Your task to perform on an android device: change text size in settings app Image 0: 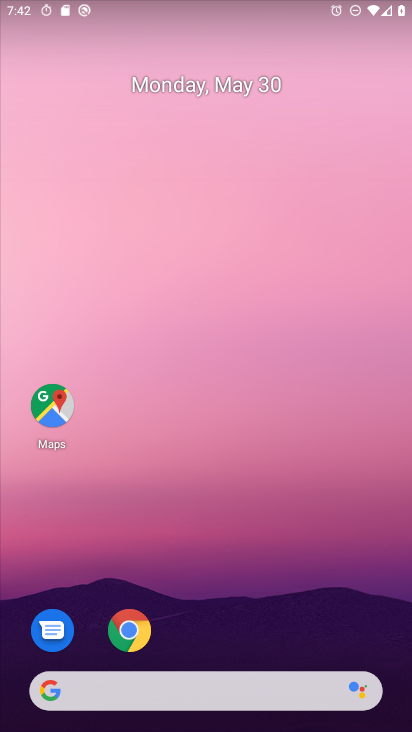
Step 0: drag from (336, 618) to (286, 0)
Your task to perform on an android device: change text size in settings app Image 1: 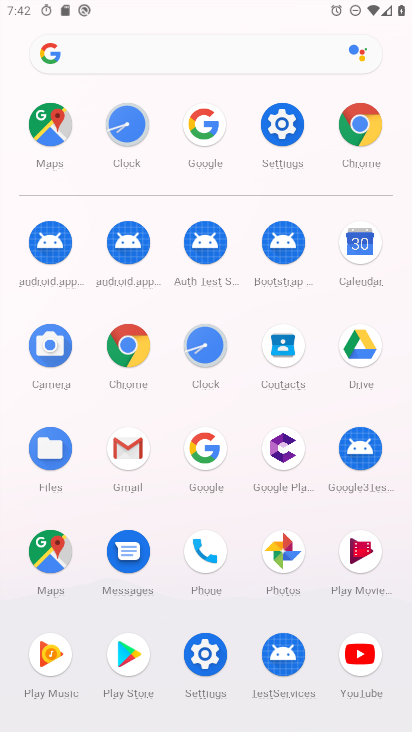
Step 1: click (297, 128)
Your task to perform on an android device: change text size in settings app Image 2: 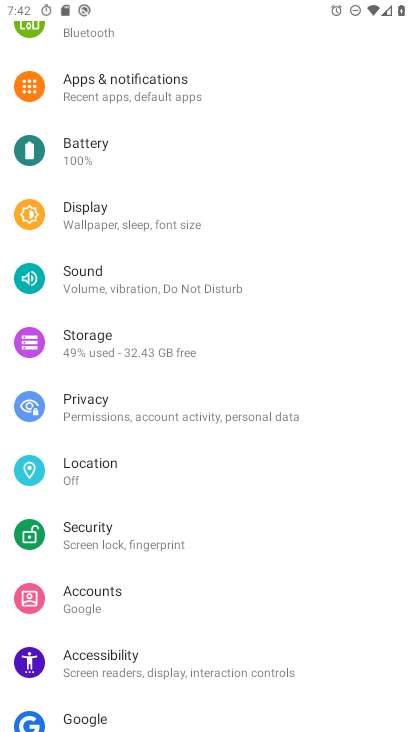
Step 2: click (113, 222)
Your task to perform on an android device: change text size in settings app Image 3: 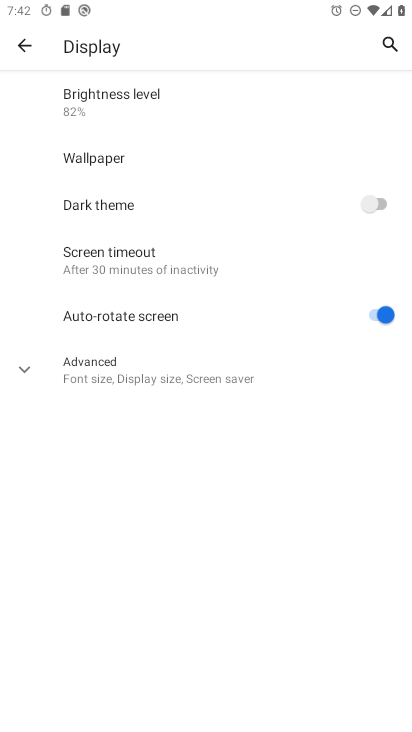
Step 3: click (113, 372)
Your task to perform on an android device: change text size in settings app Image 4: 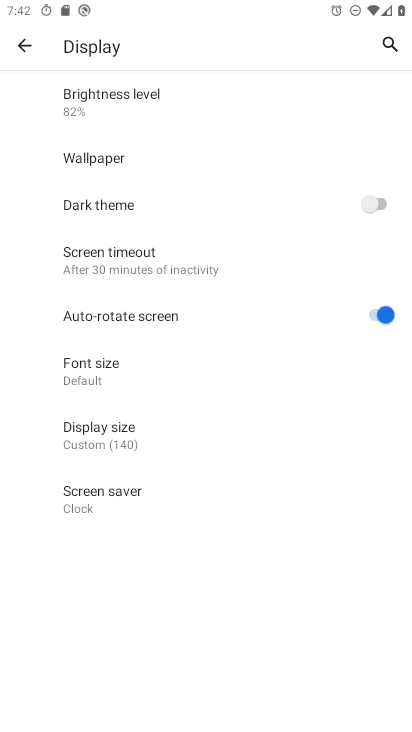
Step 4: click (113, 372)
Your task to perform on an android device: change text size in settings app Image 5: 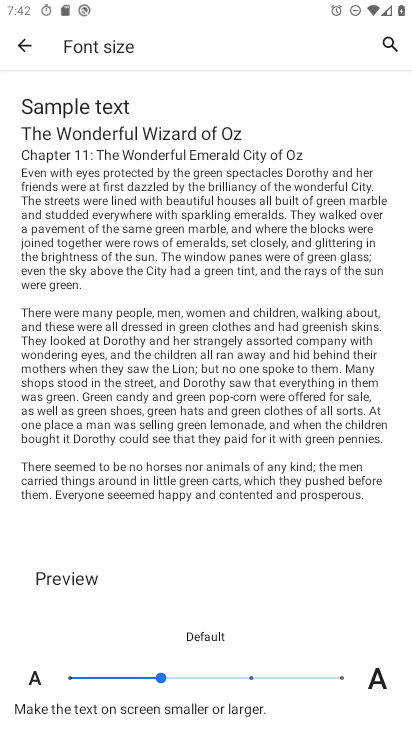
Step 5: click (252, 677)
Your task to perform on an android device: change text size in settings app Image 6: 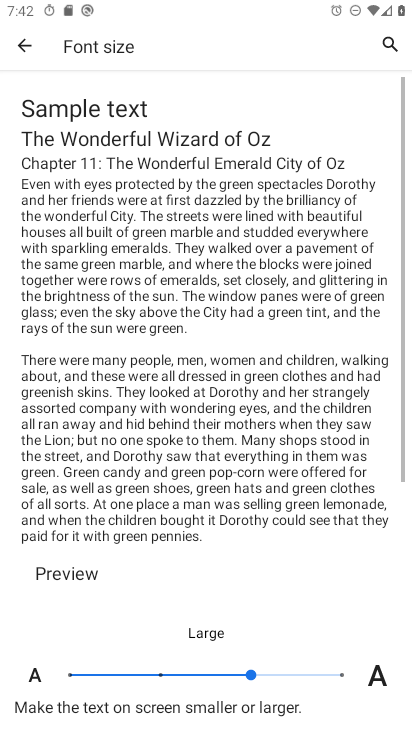
Step 6: task complete